Your task to perform on an android device: When is my next appointment? Image 0: 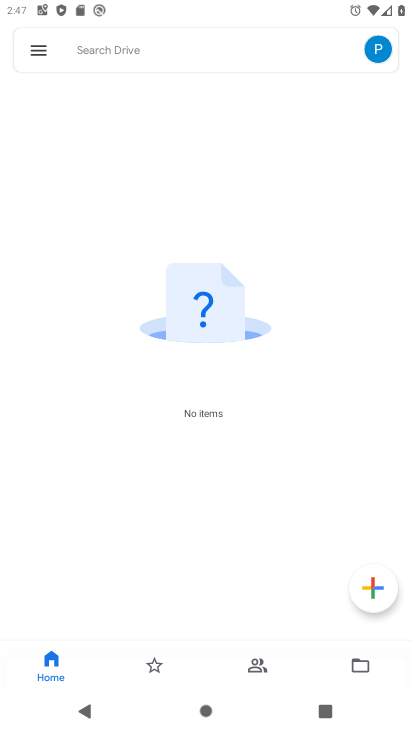
Step 0: press home button
Your task to perform on an android device: When is my next appointment? Image 1: 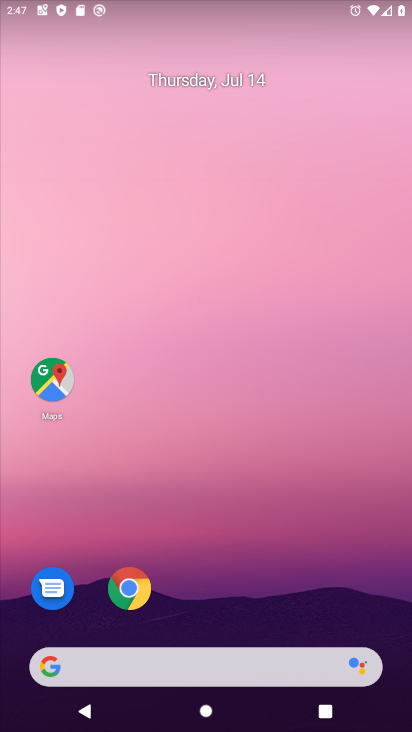
Step 1: drag from (299, 618) to (262, 187)
Your task to perform on an android device: When is my next appointment? Image 2: 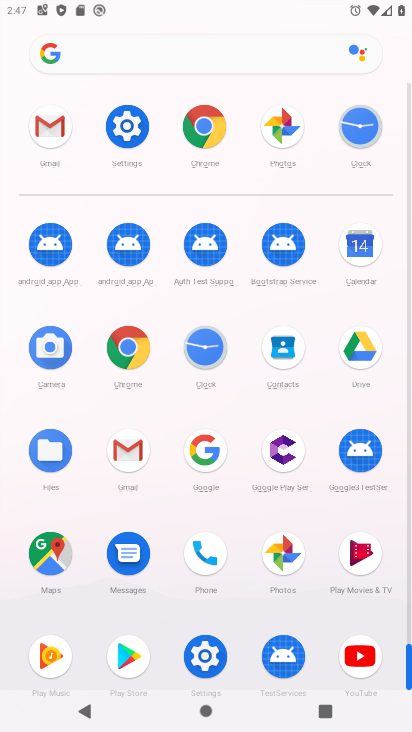
Step 2: click (348, 244)
Your task to perform on an android device: When is my next appointment? Image 3: 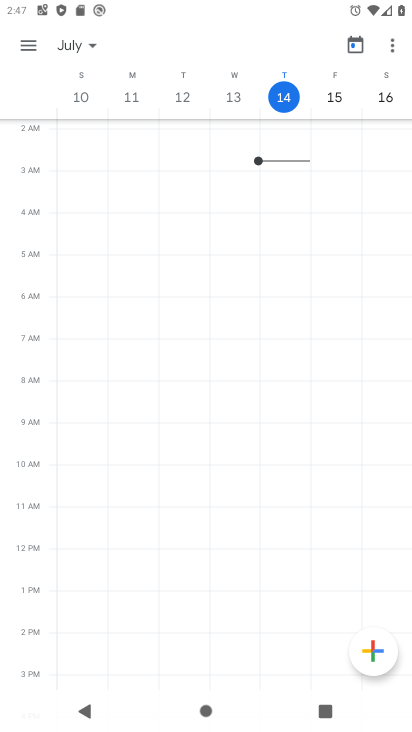
Step 3: click (335, 97)
Your task to perform on an android device: When is my next appointment? Image 4: 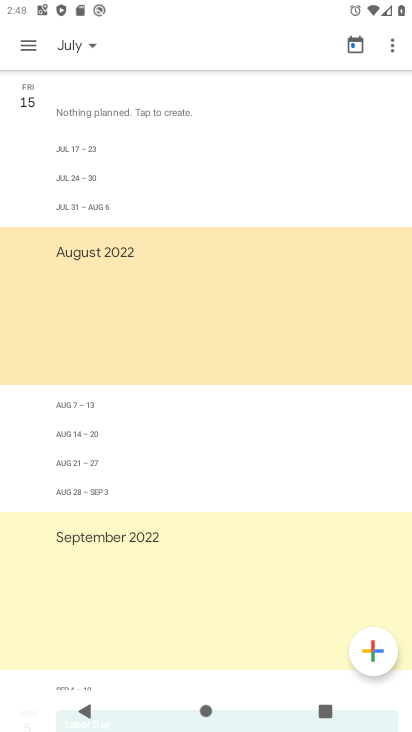
Step 4: task complete